Your task to perform on an android device: delete a single message in the gmail app Image 0: 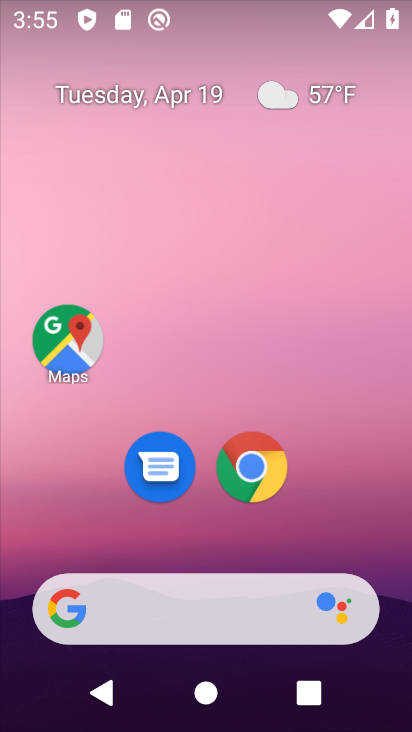
Step 0: drag from (227, 381) to (216, 81)
Your task to perform on an android device: delete a single message in the gmail app Image 1: 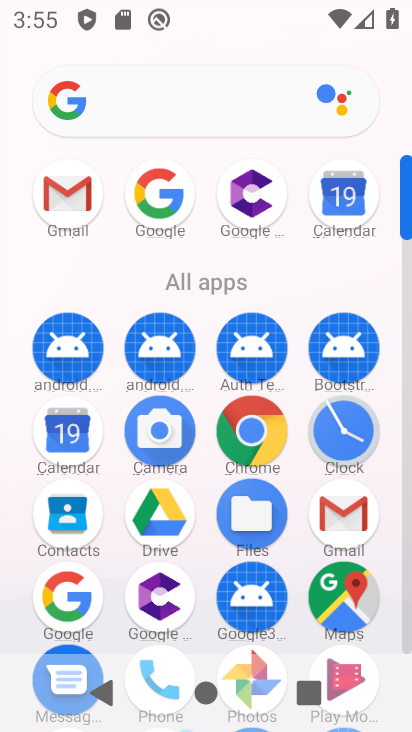
Step 1: click (347, 523)
Your task to perform on an android device: delete a single message in the gmail app Image 2: 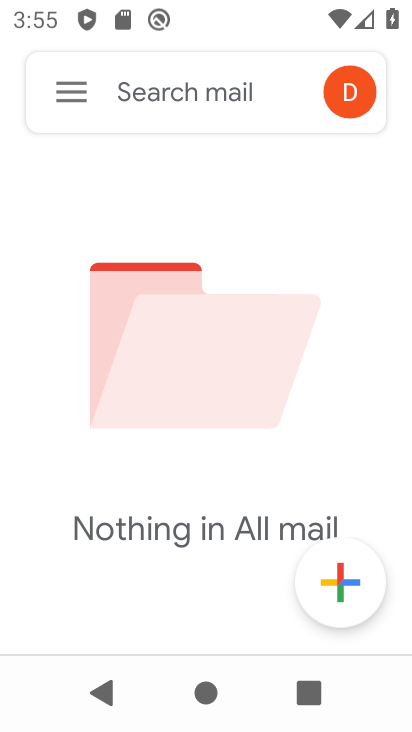
Step 2: task complete